Your task to perform on an android device: allow cookies in the chrome app Image 0: 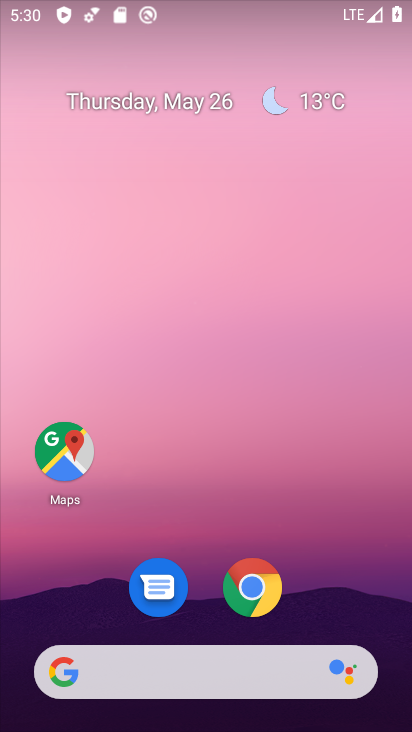
Step 0: drag from (207, 711) to (207, 104)
Your task to perform on an android device: allow cookies in the chrome app Image 1: 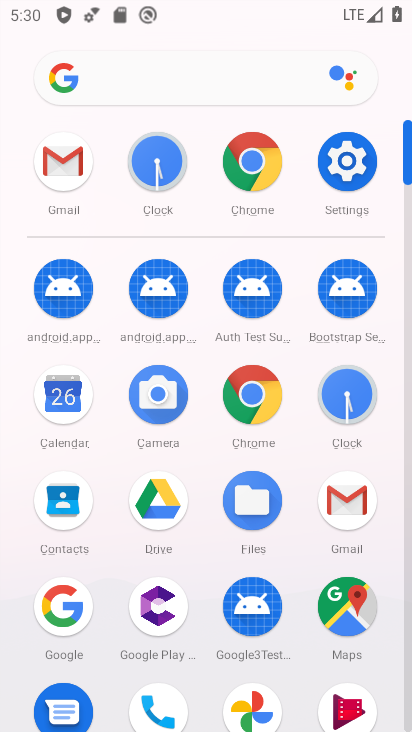
Step 1: click (248, 389)
Your task to perform on an android device: allow cookies in the chrome app Image 2: 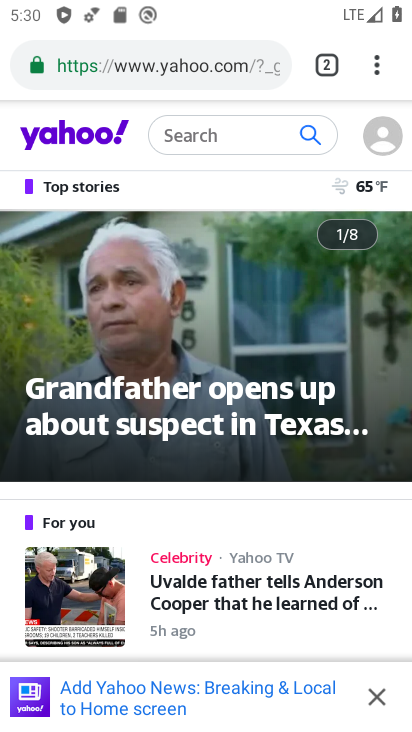
Step 2: click (377, 71)
Your task to perform on an android device: allow cookies in the chrome app Image 3: 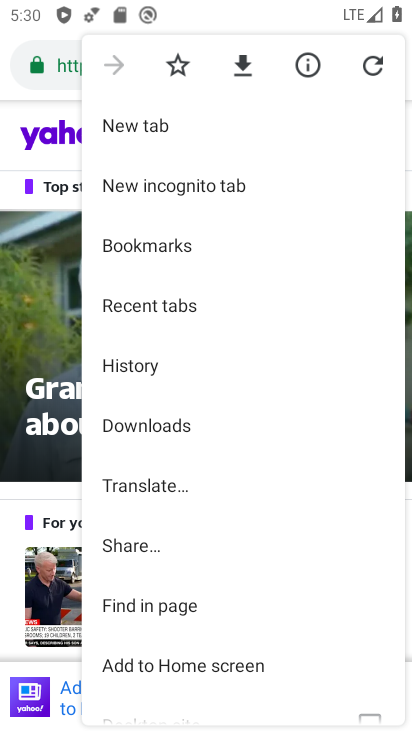
Step 3: drag from (153, 642) to (153, 196)
Your task to perform on an android device: allow cookies in the chrome app Image 4: 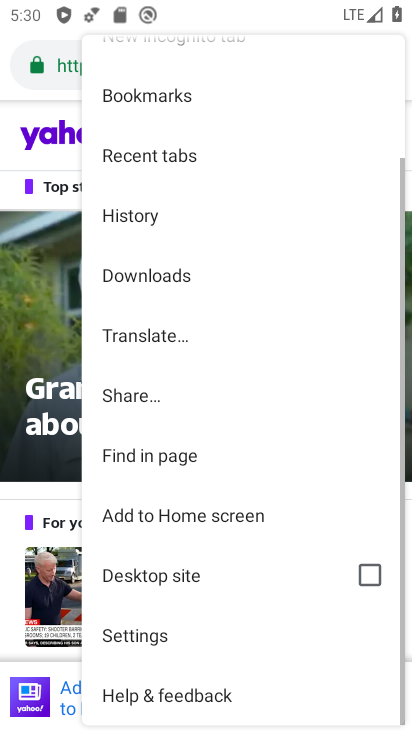
Step 4: click (132, 629)
Your task to perform on an android device: allow cookies in the chrome app Image 5: 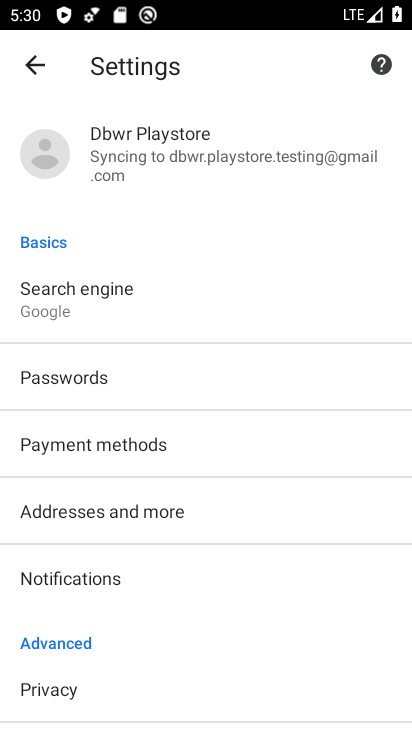
Step 5: drag from (138, 683) to (144, 317)
Your task to perform on an android device: allow cookies in the chrome app Image 6: 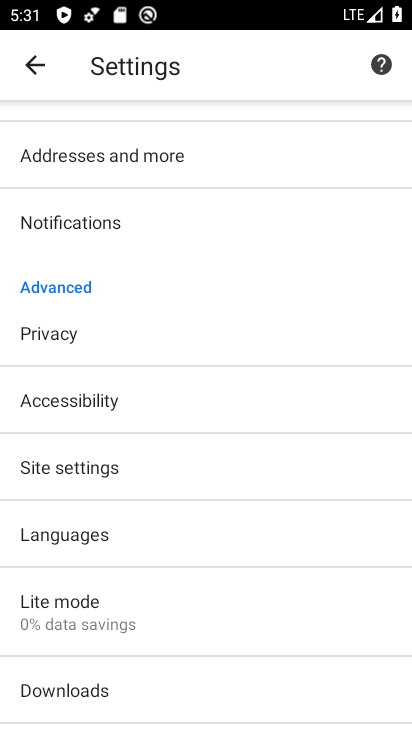
Step 6: click (91, 468)
Your task to perform on an android device: allow cookies in the chrome app Image 7: 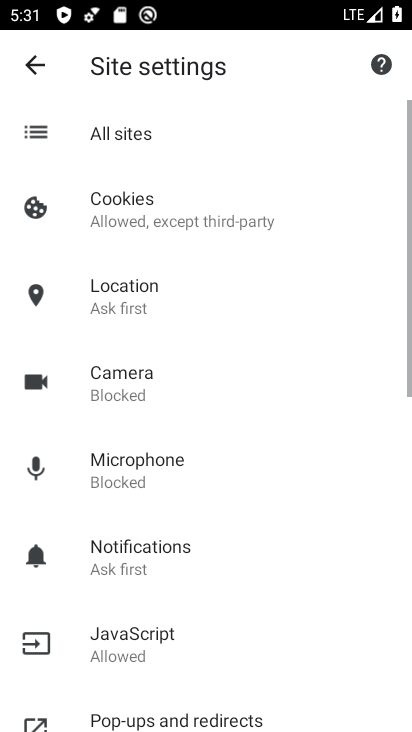
Step 7: click (140, 221)
Your task to perform on an android device: allow cookies in the chrome app Image 8: 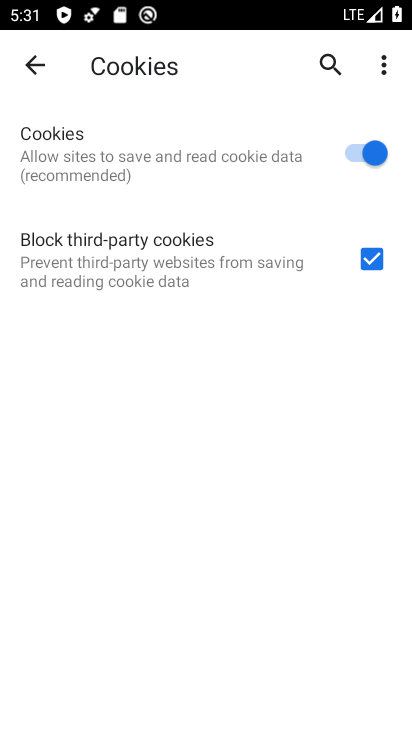
Step 8: task complete